Your task to perform on an android device: Open Yahoo.com Image 0: 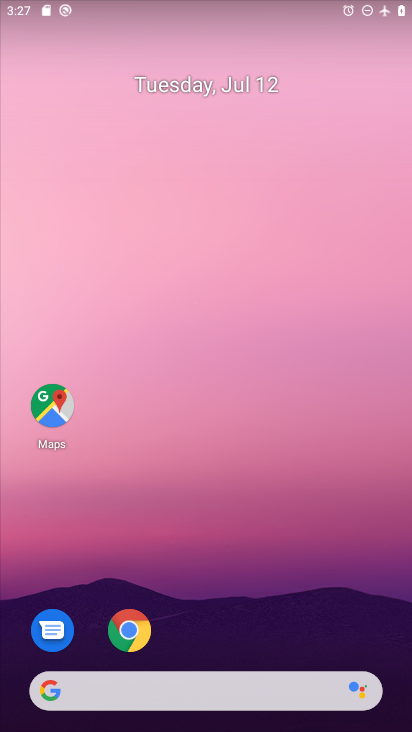
Step 0: click (146, 648)
Your task to perform on an android device: Open Yahoo.com Image 1: 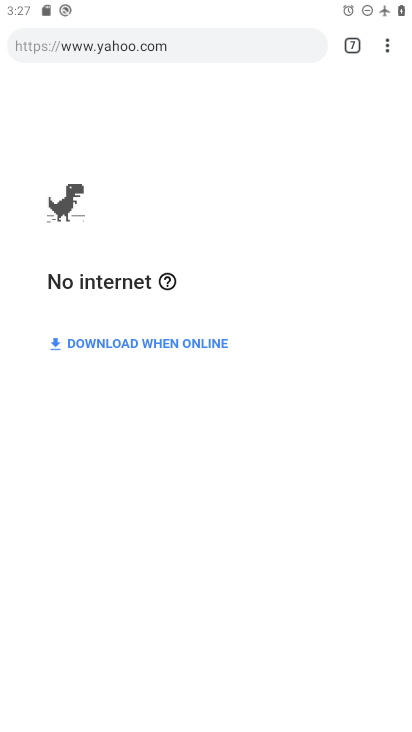
Step 1: click (360, 52)
Your task to perform on an android device: Open Yahoo.com Image 2: 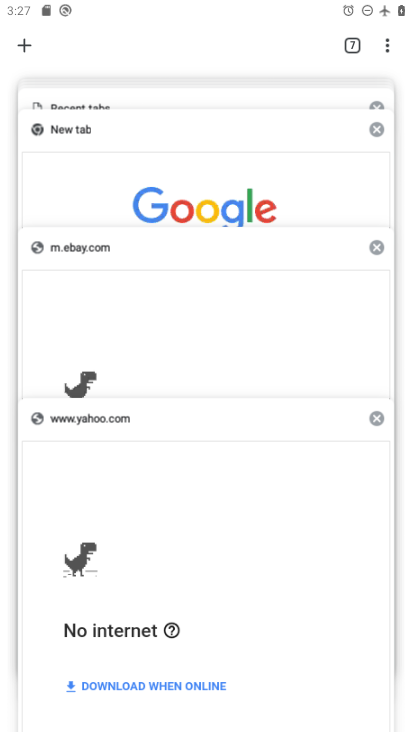
Step 2: click (16, 41)
Your task to perform on an android device: Open Yahoo.com Image 3: 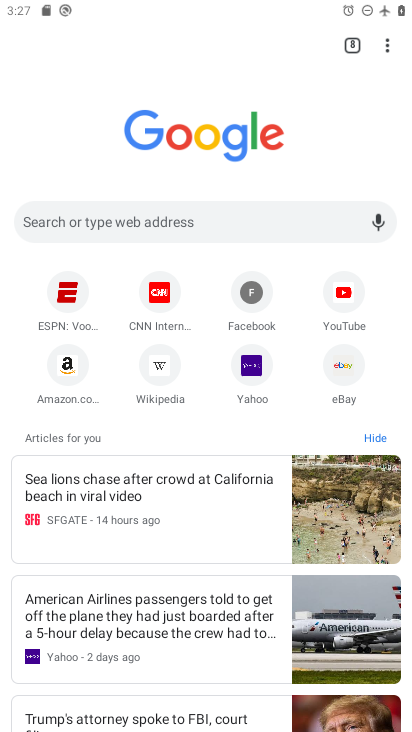
Step 3: click (233, 364)
Your task to perform on an android device: Open Yahoo.com Image 4: 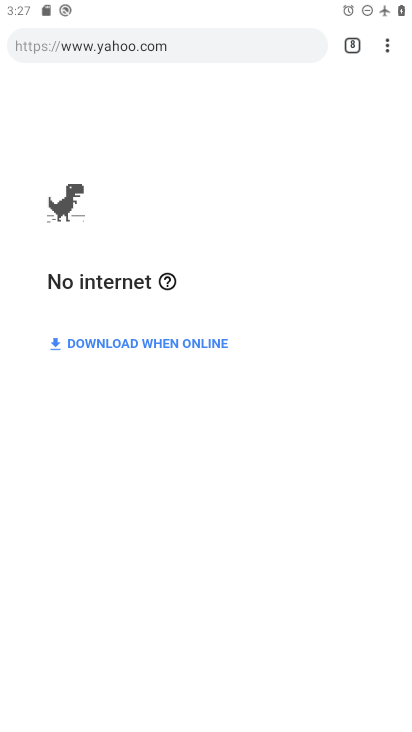
Step 4: task complete